Your task to perform on an android device: Open eBay Image 0: 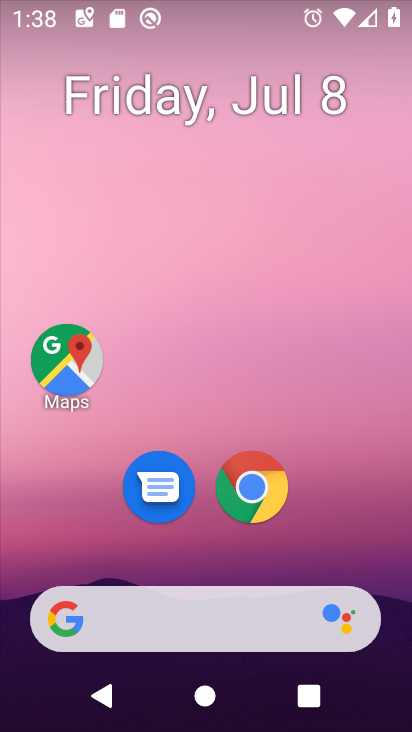
Step 0: drag from (350, 541) to (355, 193)
Your task to perform on an android device: Open eBay Image 1: 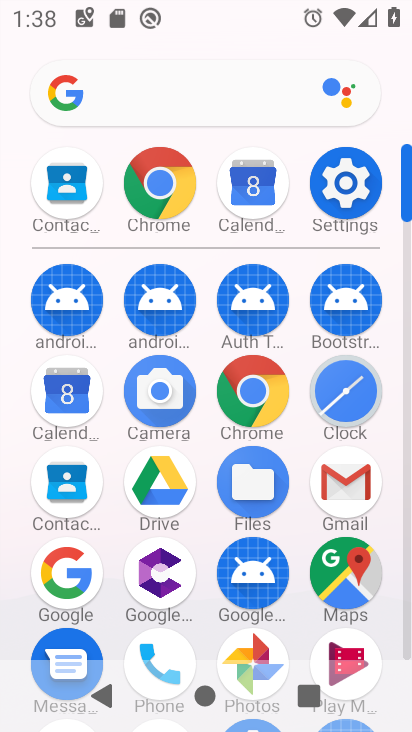
Step 1: click (267, 388)
Your task to perform on an android device: Open eBay Image 2: 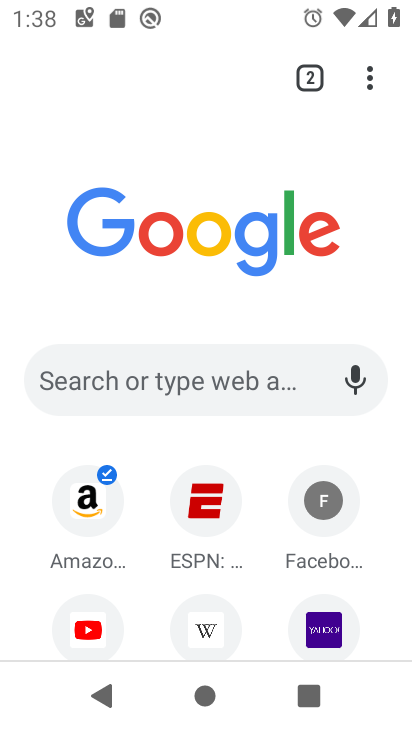
Step 2: click (236, 386)
Your task to perform on an android device: Open eBay Image 3: 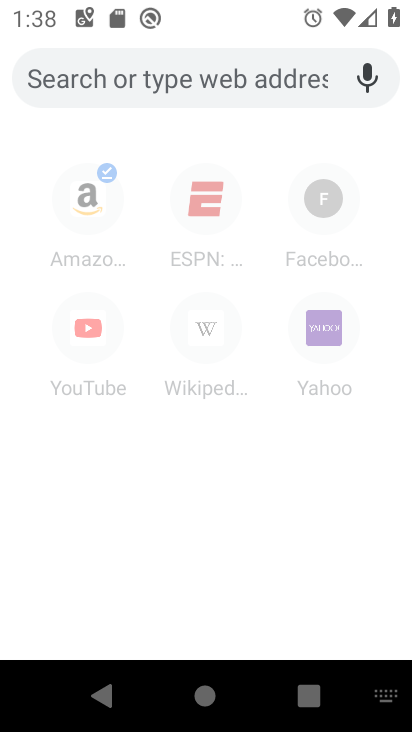
Step 3: type "ebay"
Your task to perform on an android device: Open eBay Image 4: 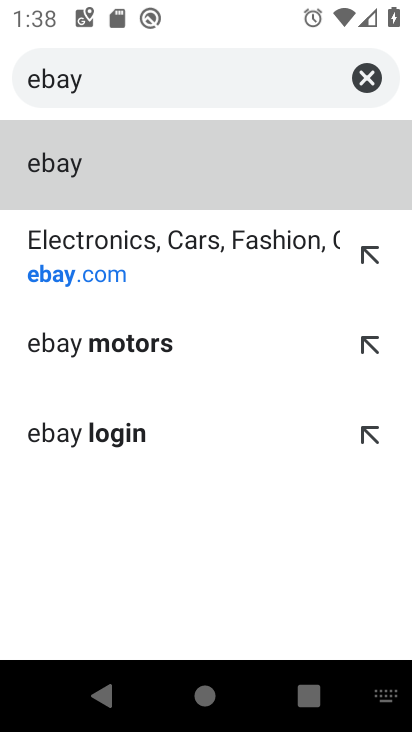
Step 4: click (163, 247)
Your task to perform on an android device: Open eBay Image 5: 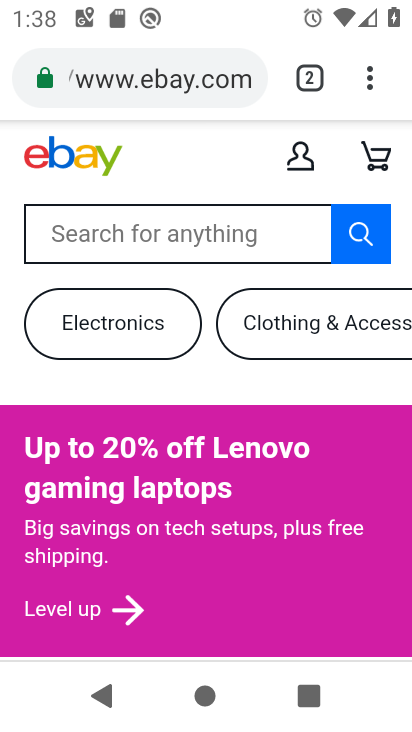
Step 5: task complete